Your task to perform on an android device: Open privacy settings Image 0: 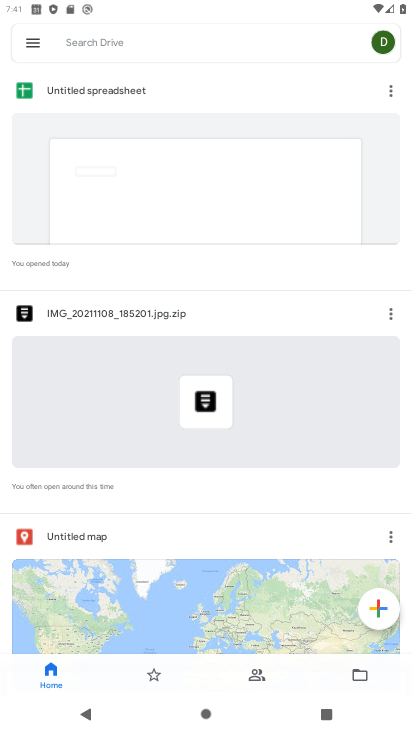
Step 0: press home button
Your task to perform on an android device: Open privacy settings Image 1: 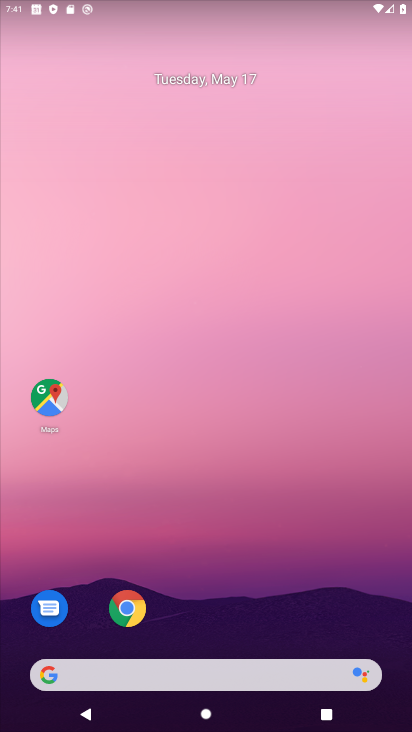
Step 1: drag from (197, 583) to (315, 19)
Your task to perform on an android device: Open privacy settings Image 2: 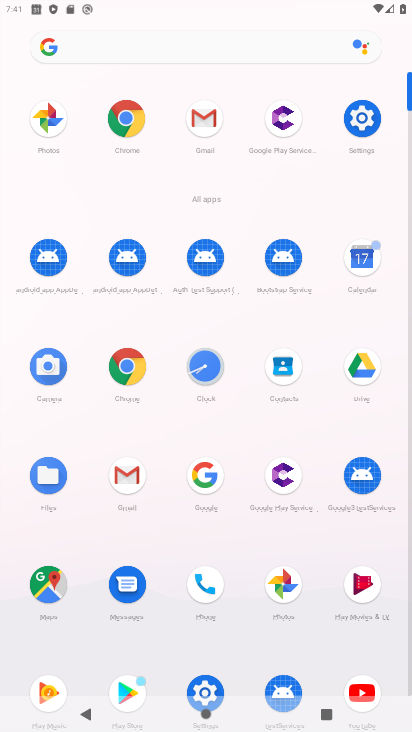
Step 2: click (372, 135)
Your task to perform on an android device: Open privacy settings Image 3: 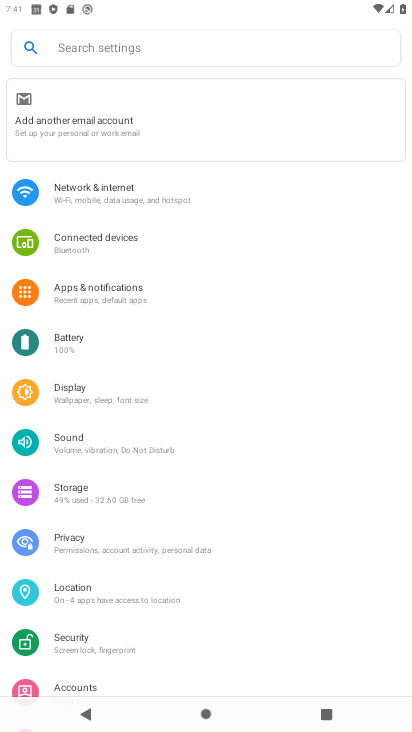
Step 3: click (99, 542)
Your task to perform on an android device: Open privacy settings Image 4: 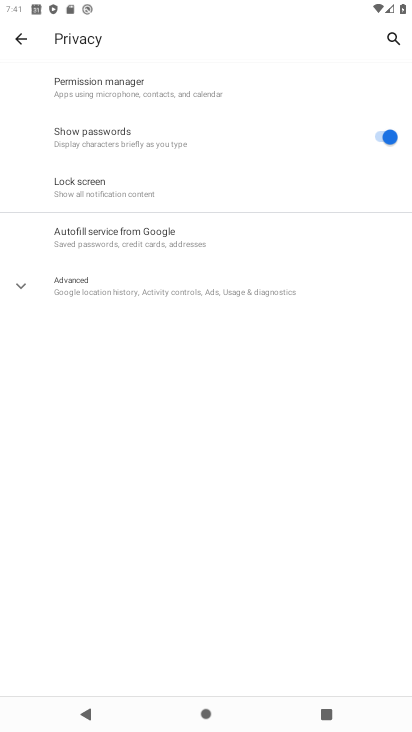
Step 4: task complete